Your task to perform on an android device: Open the calendar and show me this week's events? Image 0: 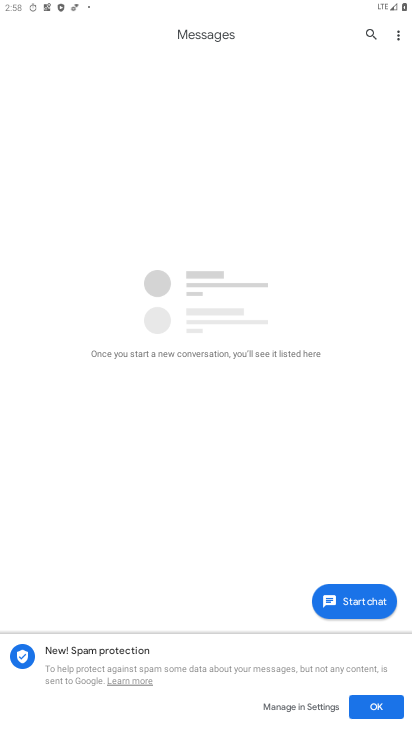
Step 0: press home button
Your task to perform on an android device: Open the calendar and show me this week's events? Image 1: 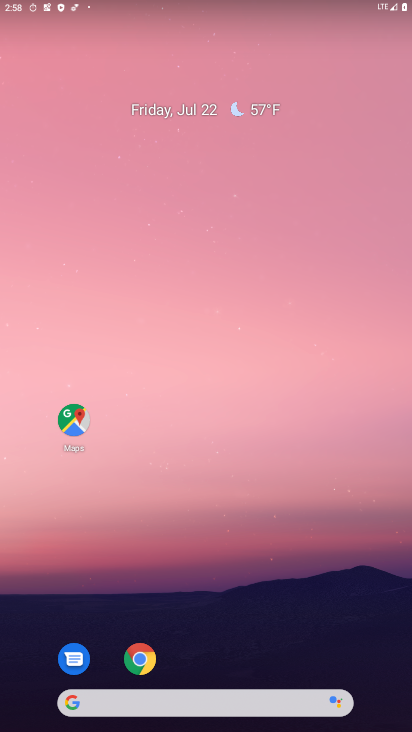
Step 1: drag from (271, 636) to (229, 3)
Your task to perform on an android device: Open the calendar and show me this week's events? Image 2: 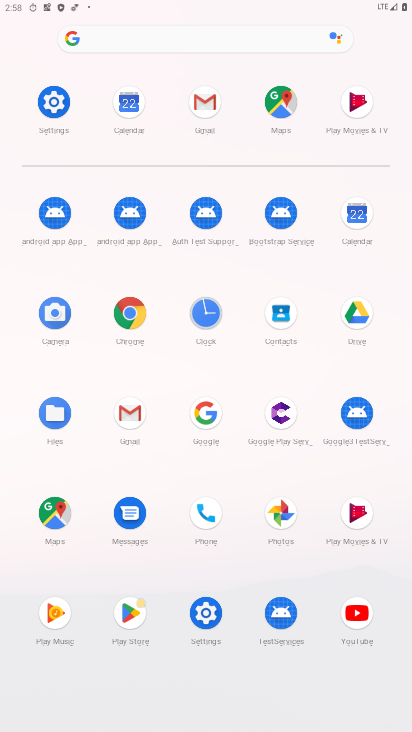
Step 2: click (363, 222)
Your task to perform on an android device: Open the calendar and show me this week's events? Image 3: 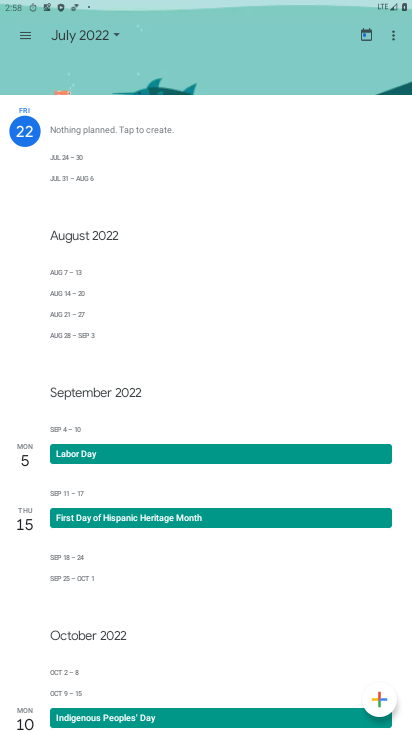
Step 3: click (61, 32)
Your task to perform on an android device: Open the calendar and show me this week's events? Image 4: 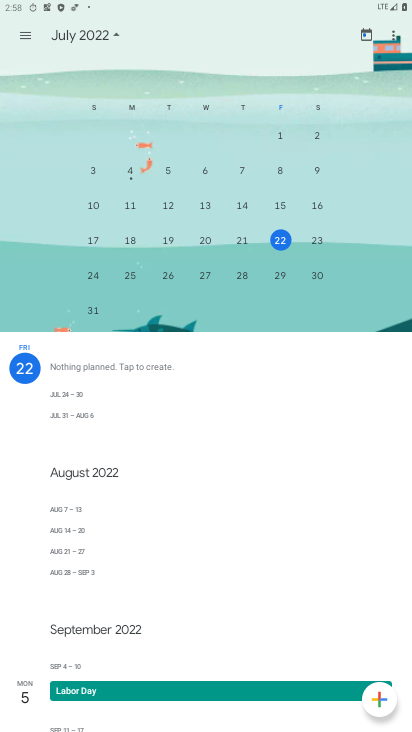
Step 4: click (274, 238)
Your task to perform on an android device: Open the calendar and show me this week's events? Image 5: 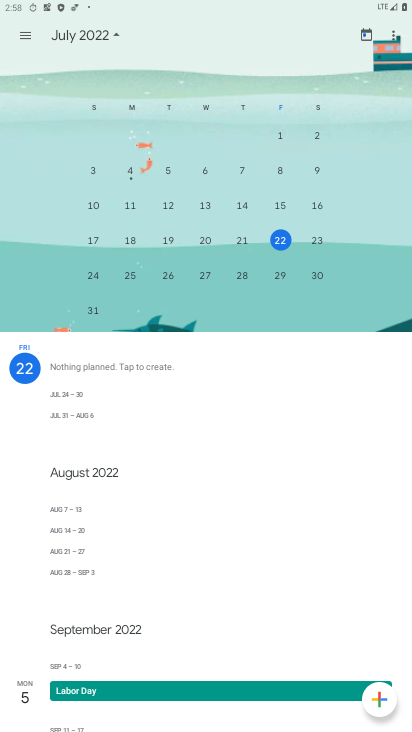
Step 5: click (319, 238)
Your task to perform on an android device: Open the calendar and show me this week's events? Image 6: 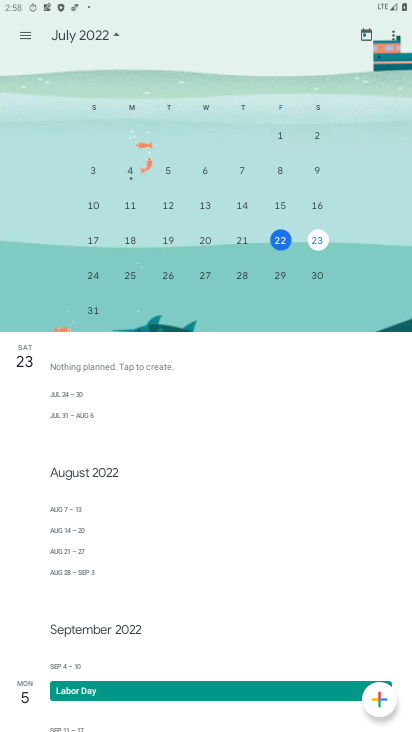
Step 6: task complete